Your task to perform on an android device: Go to location settings Image 0: 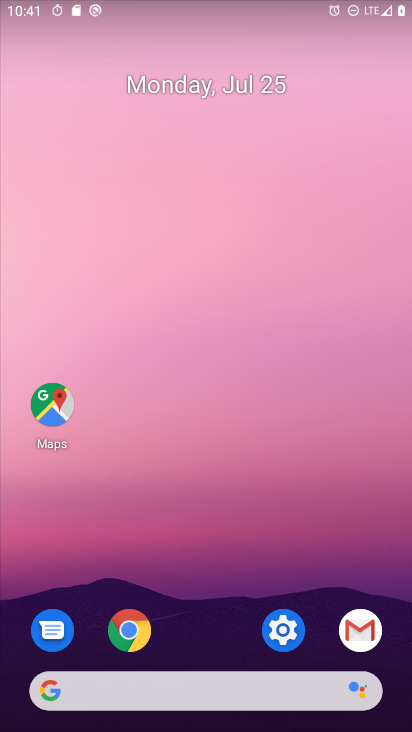
Step 0: click (294, 642)
Your task to perform on an android device: Go to location settings Image 1: 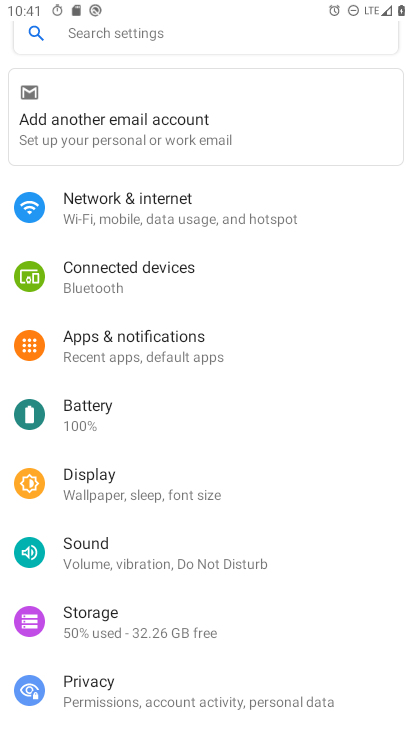
Step 1: drag from (137, 650) to (149, 566)
Your task to perform on an android device: Go to location settings Image 2: 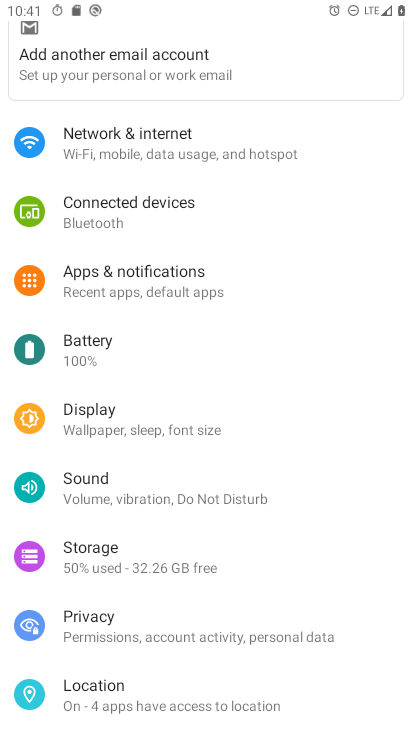
Step 2: click (107, 691)
Your task to perform on an android device: Go to location settings Image 3: 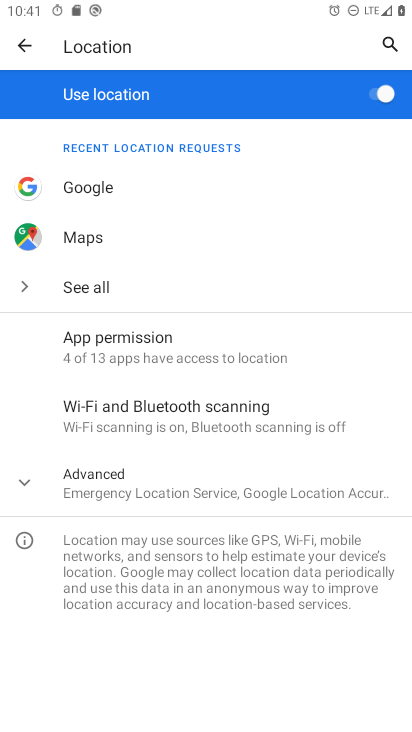
Step 3: click (66, 481)
Your task to perform on an android device: Go to location settings Image 4: 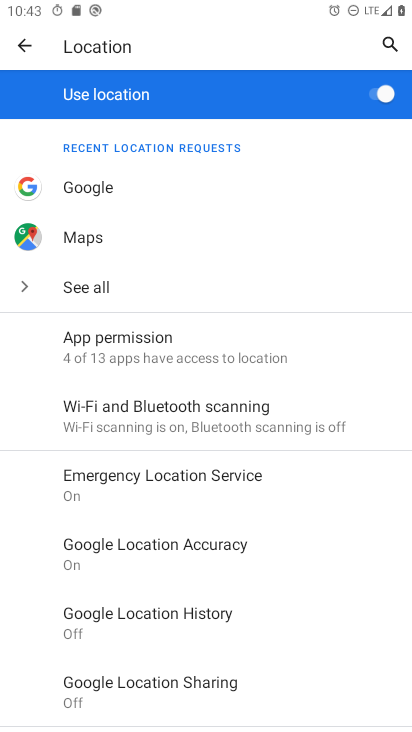
Step 4: task complete